Your task to perform on an android device: manage bookmarks in the chrome app Image 0: 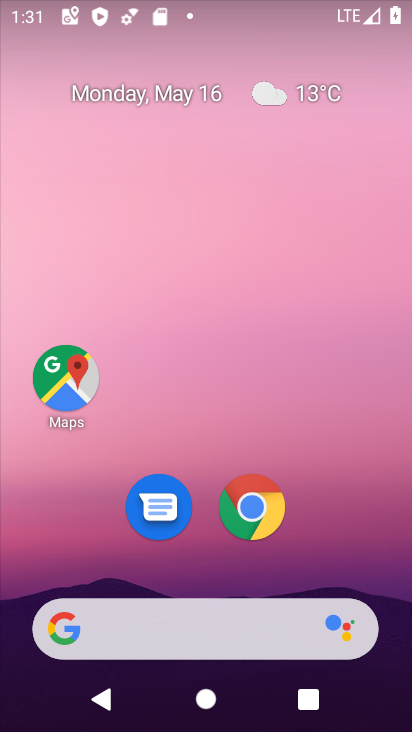
Step 0: click (265, 502)
Your task to perform on an android device: manage bookmarks in the chrome app Image 1: 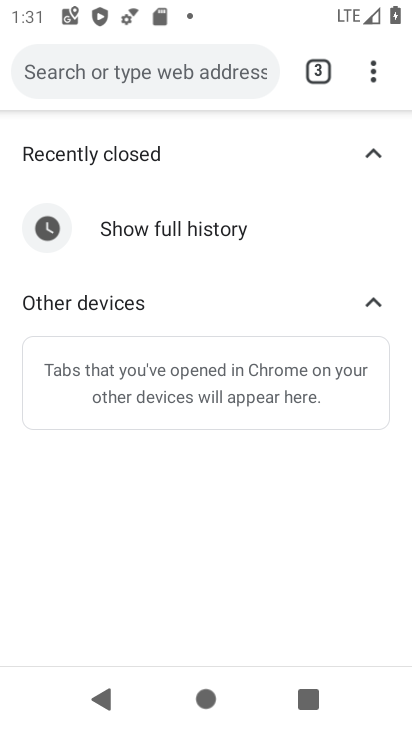
Step 1: click (372, 66)
Your task to perform on an android device: manage bookmarks in the chrome app Image 2: 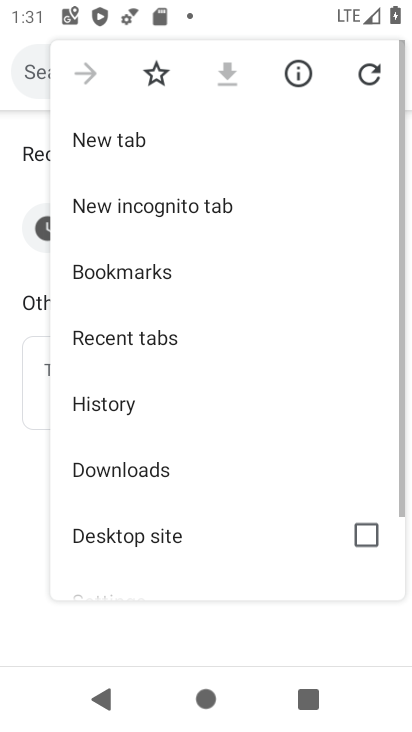
Step 2: click (180, 272)
Your task to perform on an android device: manage bookmarks in the chrome app Image 3: 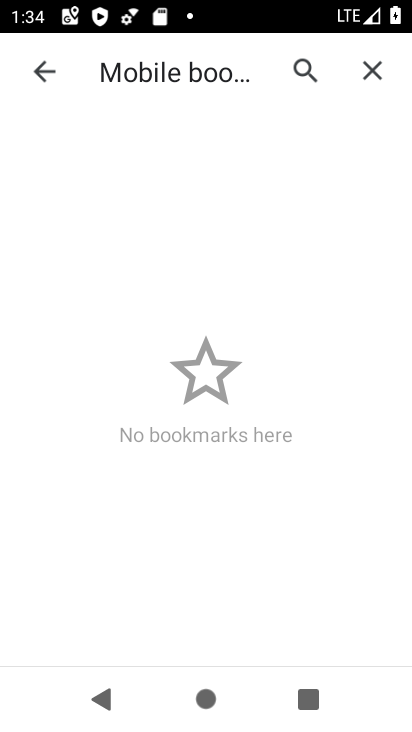
Step 3: task complete